Your task to perform on an android device: Show me the best 1080p monitor on Target.com Image 0: 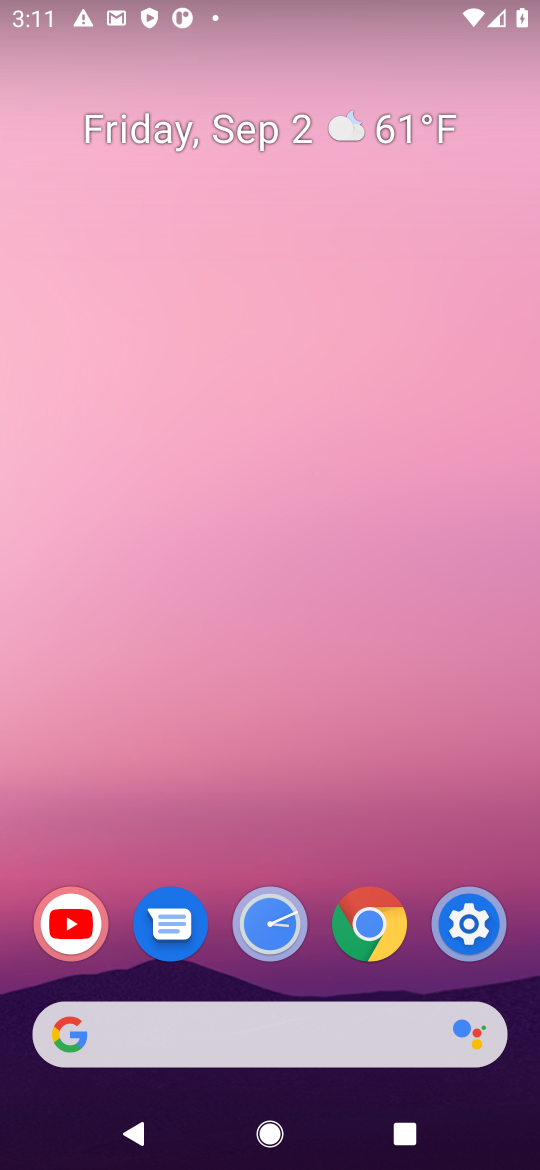
Step 0: click (408, 1033)
Your task to perform on an android device: Show me the best 1080p monitor on Target.com Image 1: 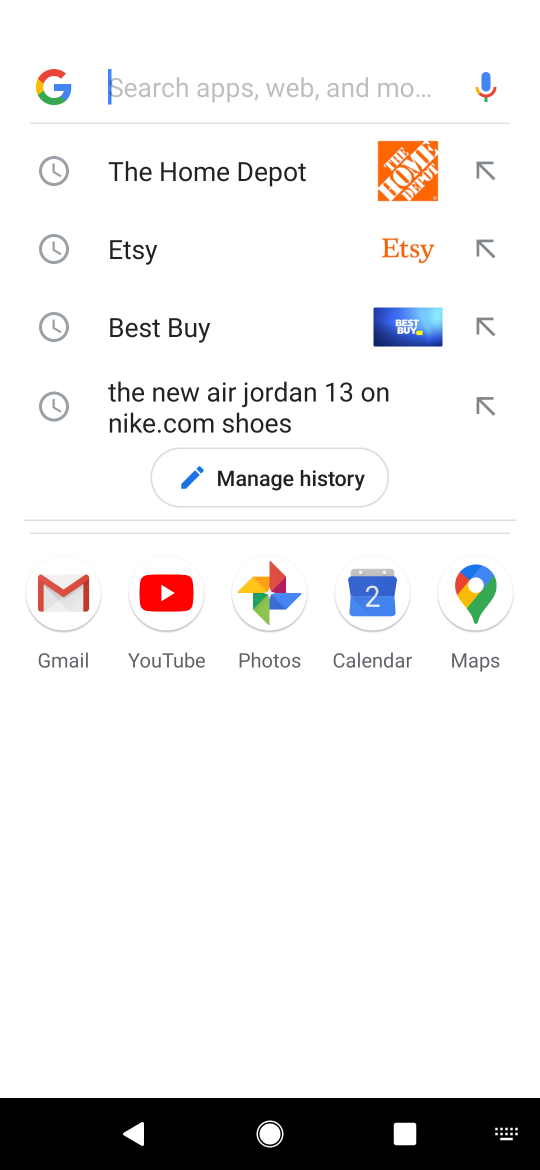
Step 1: press enter
Your task to perform on an android device: Show me the best 1080p monitor on Target.com Image 2: 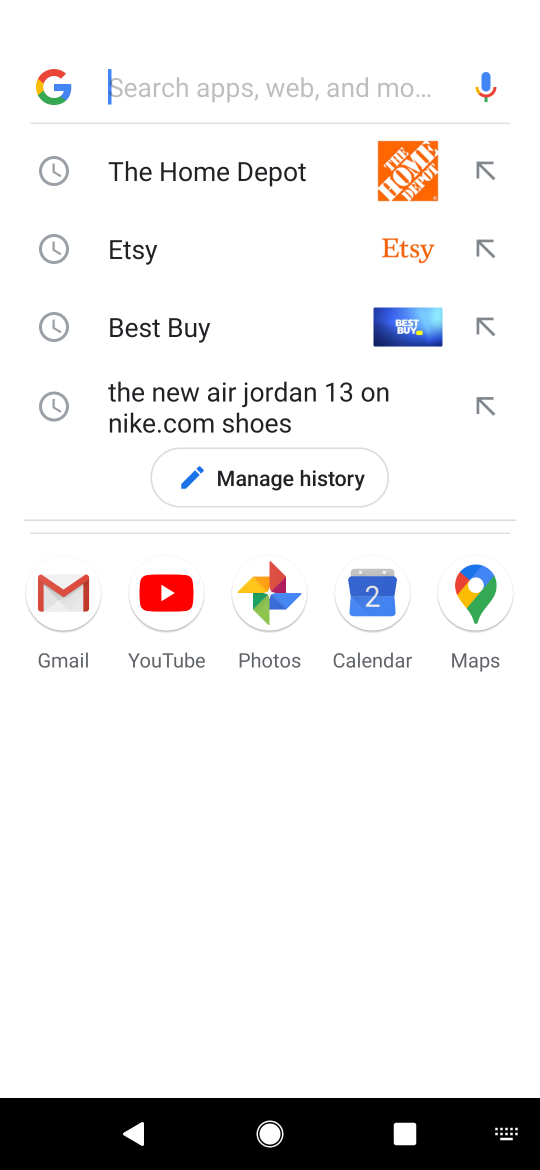
Step 2: type "taret.com"
Your task to perform on an android device: Show me the best 1080p monitor on Target.com Image 3: 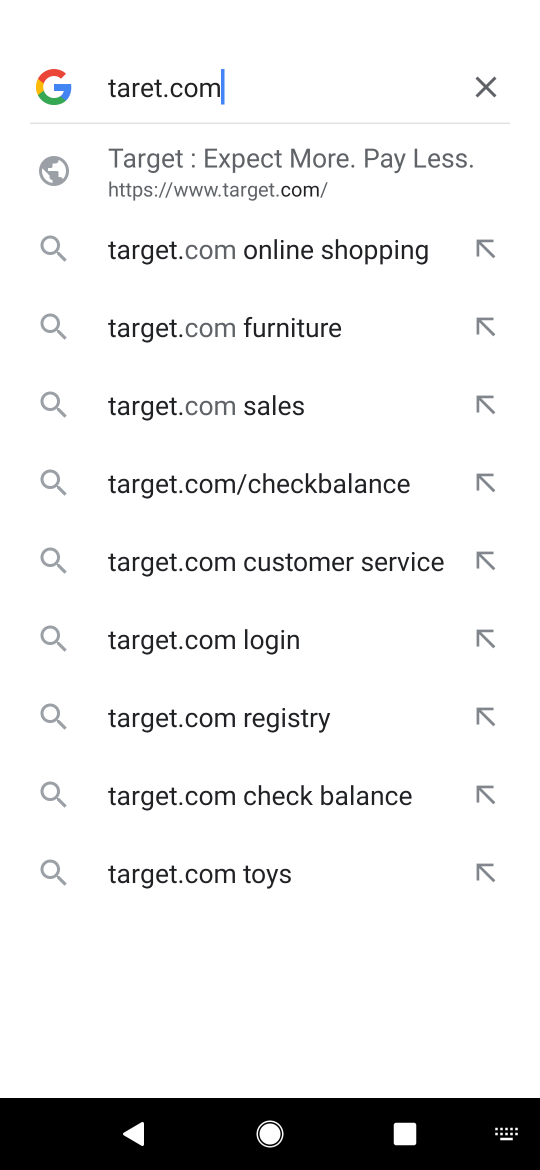
Step 3: click (300, 163)
Your task to perform on an android device: Show me the best 1080p monitor on Target.com Image 4: 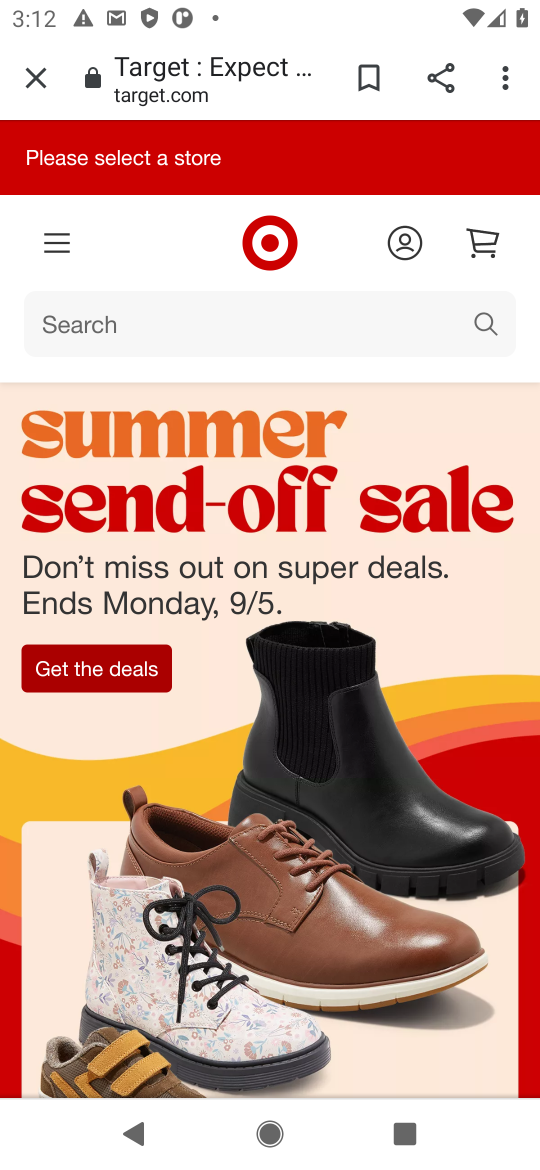
Step 4: click (264, 320)
Your task to perform on an android device: Show me the best 1080p monitor on Target.com Image 5: 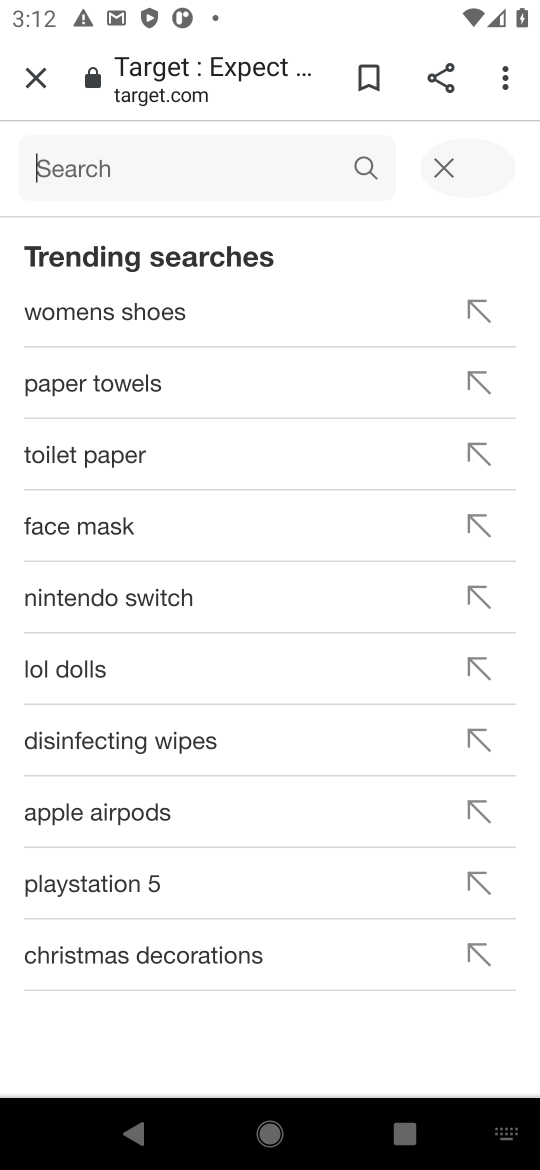
Step 5: type "1080p monitor"
Your task to perform on an android device: Show me the best 1080p monitor on Target.com Image 6: 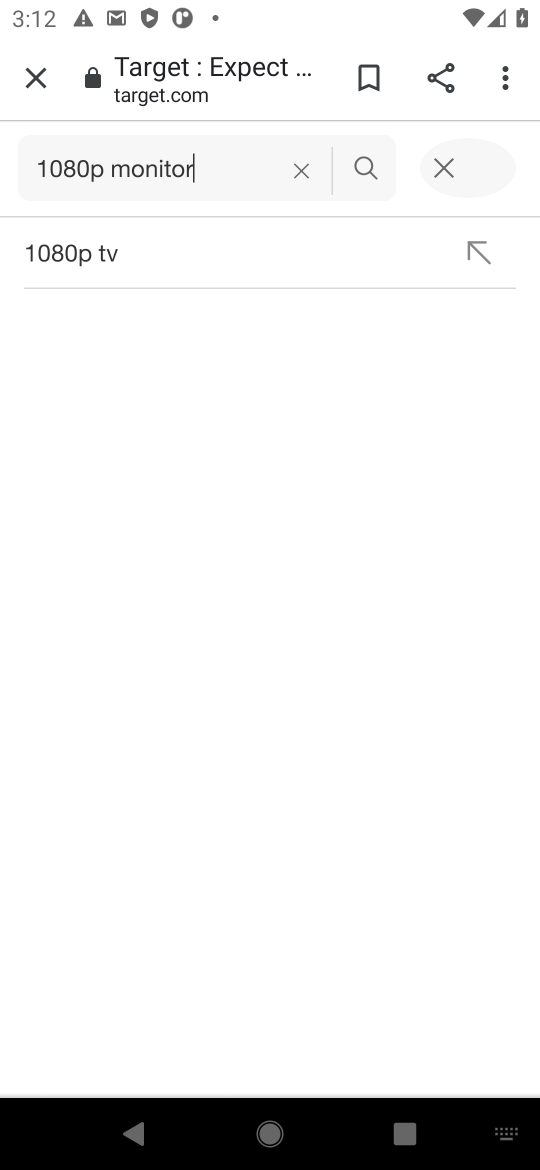
Step 6: click (361, 162)
Your task to perform on an android device: Show me the best 1080p monitor on Target.com Image 7: 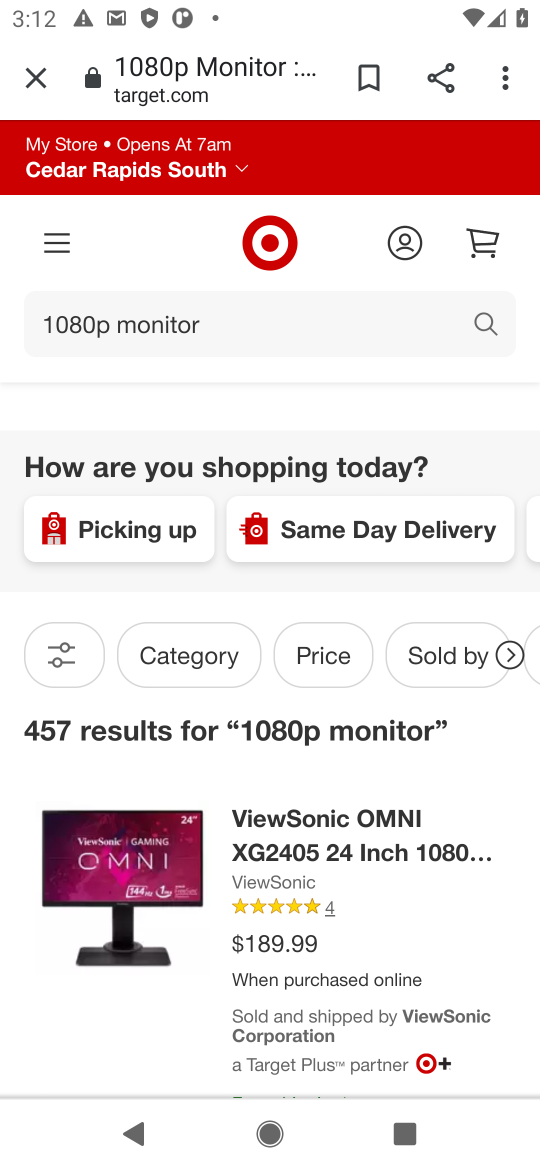
Step 7: task complete